Your task to perform on an android device: find photos in the google photos app Image 0: 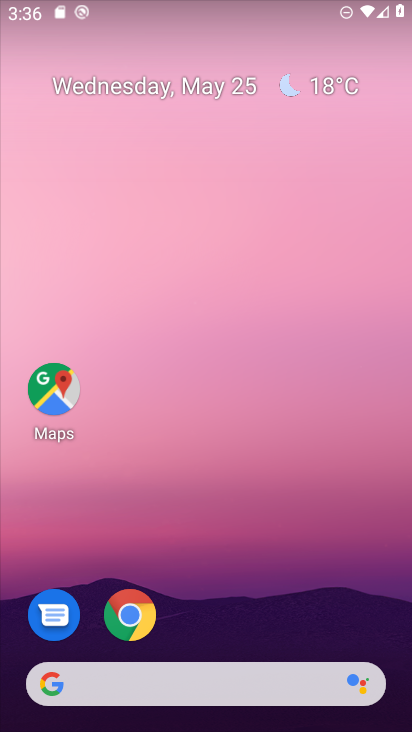
Step 0: drag from (246, 602) to (312, 4)
Your task to perform on an android device: find photos in the google photos app Image 1: 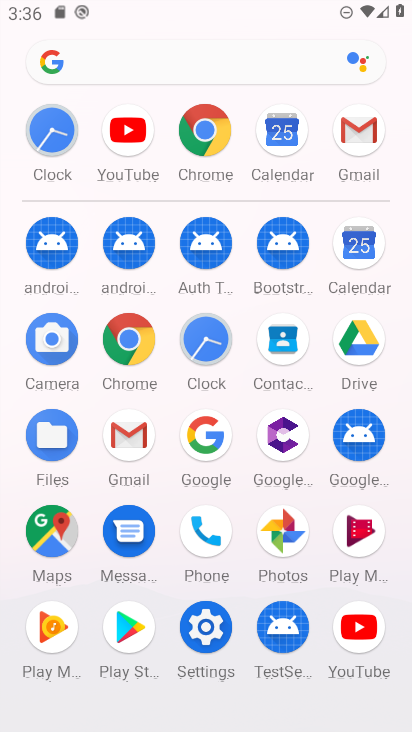
Step 1: click (277, 523)
Your task to perform on an android device: find photos in the google photos app Image 2: 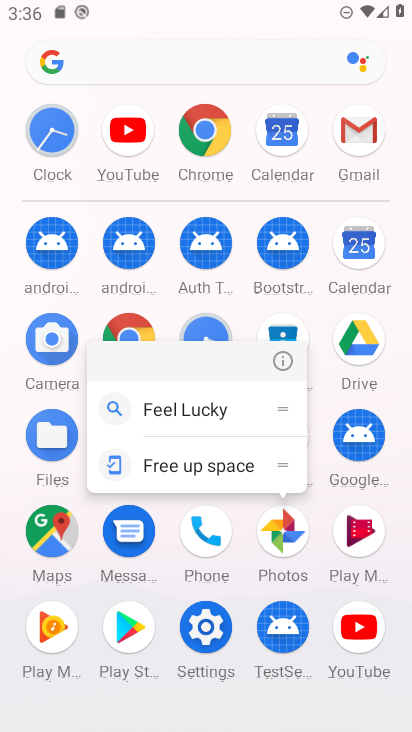
Step 2: click (280, 533)
Your task to perform on an android device: find photos in the google photos app Image 3: 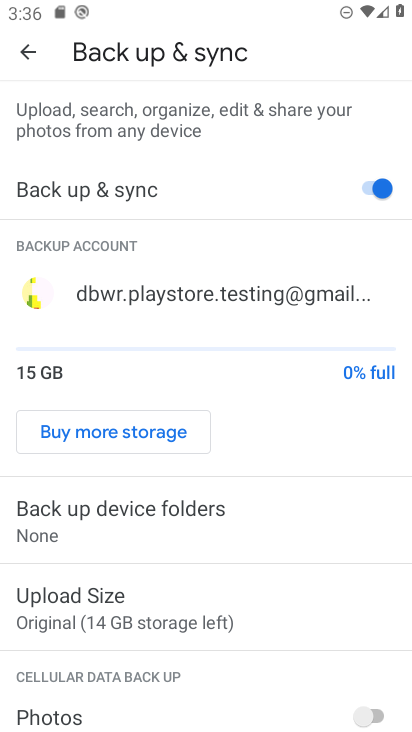
Step 3: click (25, 47)
Your task to perform on an android device: find photos in the google photos app Image 4: 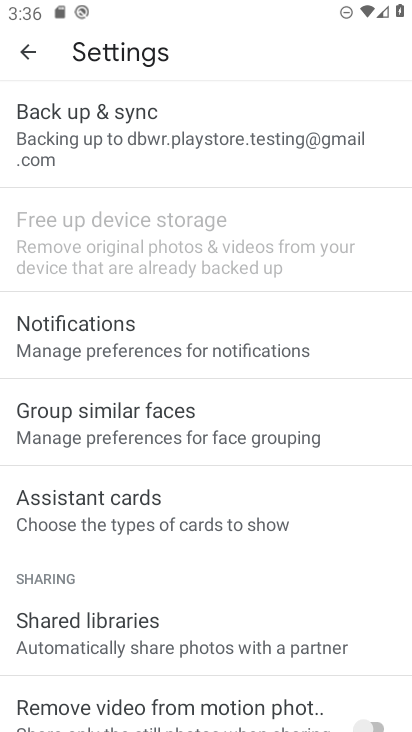
Step 4: click (25, 49)
Your task to perform on an android device: find photos in the google photos app Image 5: 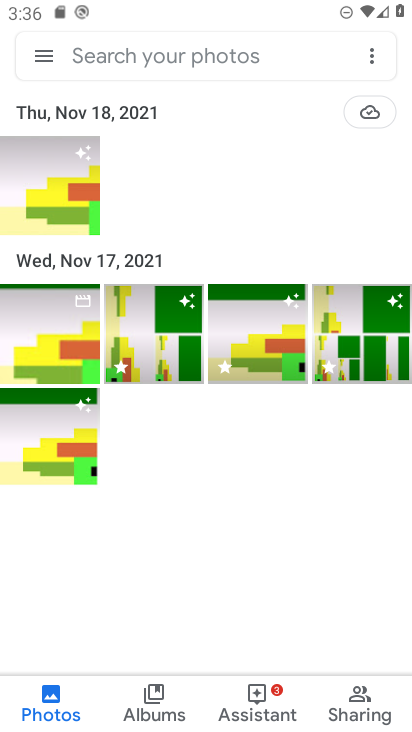
Step 5: task complete